Your task to perform on an android device: make emails show in primary in the gmail app Image 0: 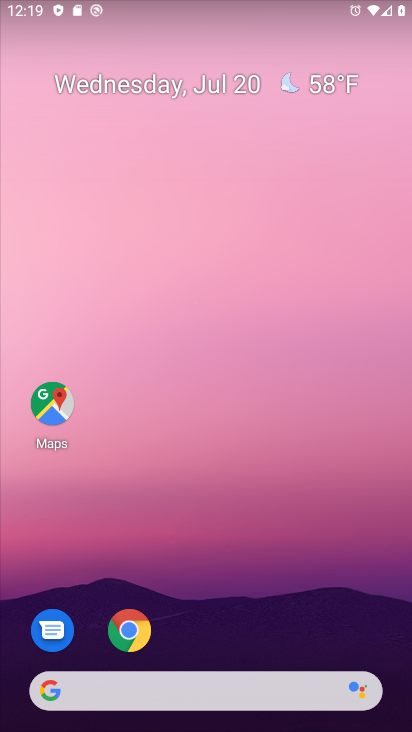
Step 0: drag from (227, 621) to (351, 88)
Your task to perform on an android device: make emails show in primary in the gmail app Image 1: 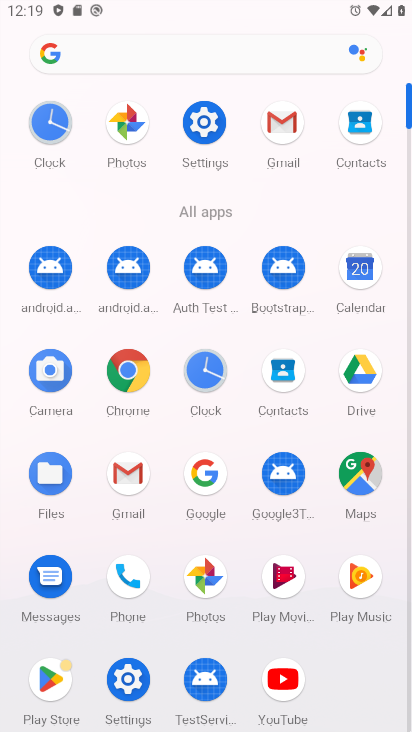
Step 1: click (277, 125)
Your task to perform on an android device: make emails show in primary in the gmail app Image 2: 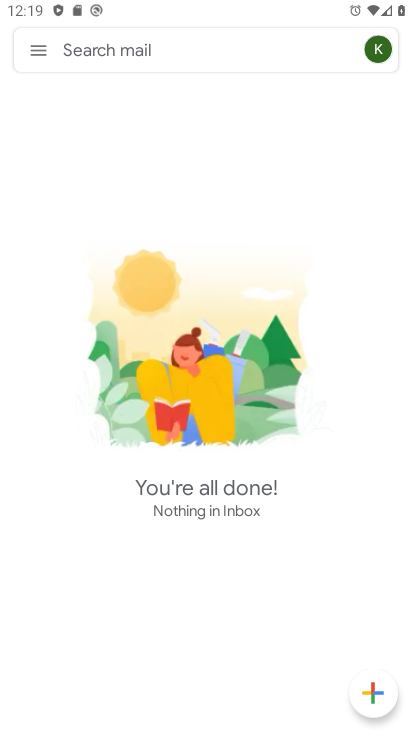
Step 2: click (37, 55)
Your task to perform on an android device: make emails show in primary in the gmail app Image 3: 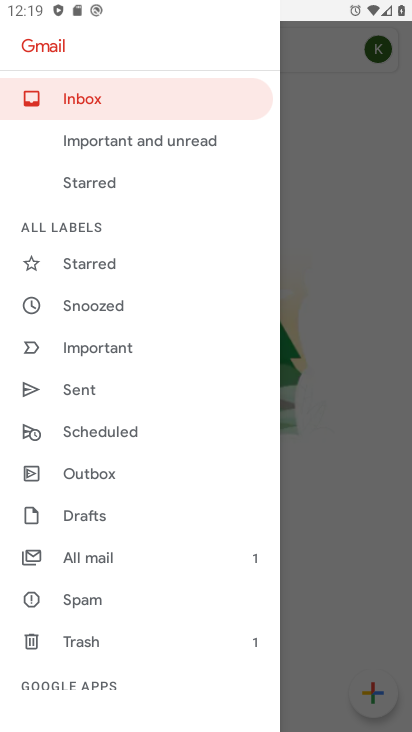
Step 3: drag from (147, 652) to (234, 126)
Your task to perform on an android device: make emails show in primary in the gmail app Image 4: 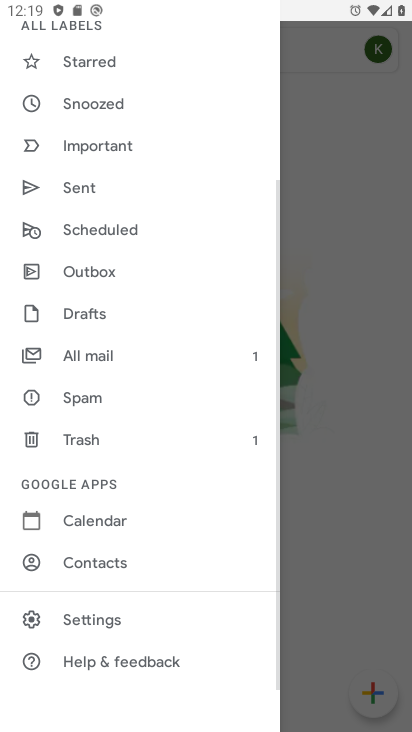
Step 4: click (108, 615)
Your task to perform on an android device: make emails show in primary in the gmail app Image 5: 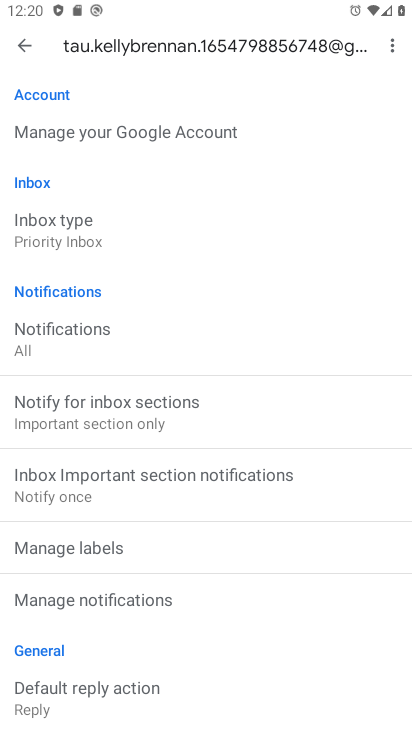
Step 5: task complete